Your task to perform on an android device: turn on airplane mode Image 0: 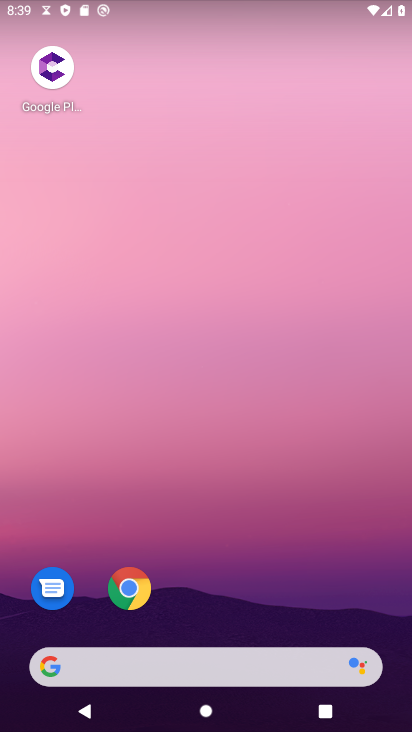
Step 0: drag from (193, 577) to (253, 14)
Your task to perform on an android device: turn on airplane mode Image 1: 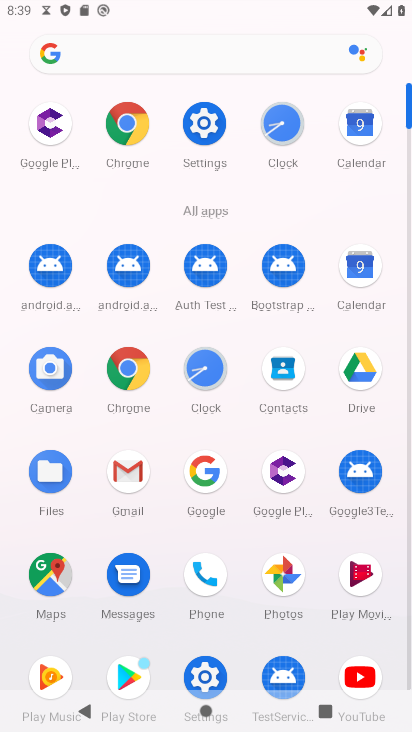
Step 1: click (201, 157)
Your task to perform on an android device: turn on airplane mode Image 2: 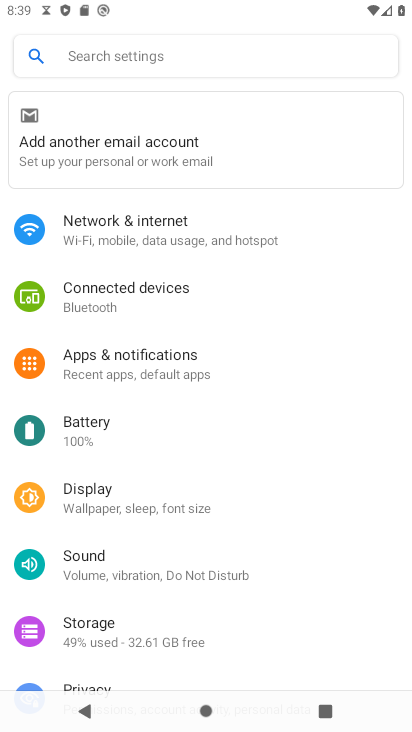
Step 2: click (159, 238)
Your task to perform on an android device: turn on airplane mode Image 3: 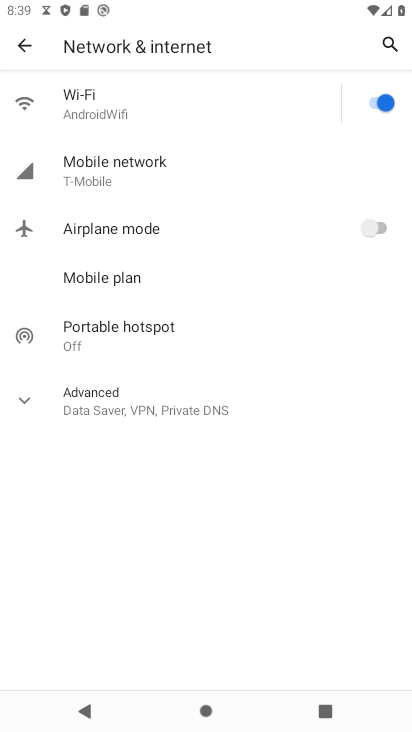
Step 3: click (376, 232)
Your task to perform on an android device: turn on airplane mode Image 4: 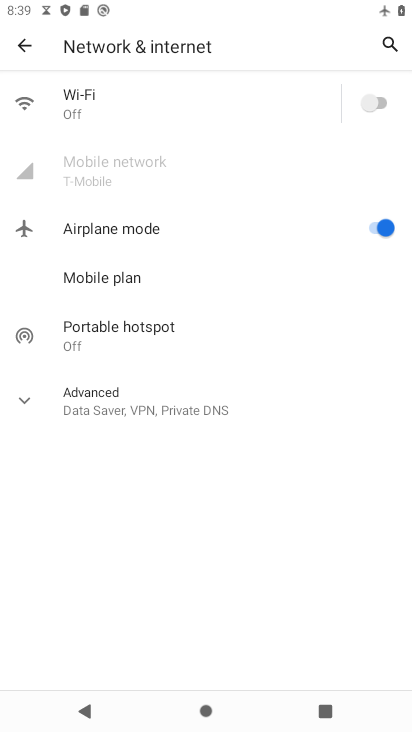
Step 4: task complete